Your task to perform on an android device: turn off improve location accuracy Image 0: 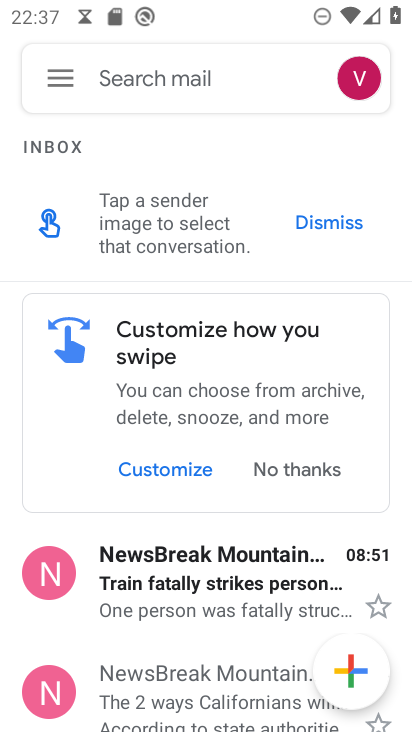
Step 0: press home button
Your task to perform on an android device: turn off improve location accuracy Image 1: 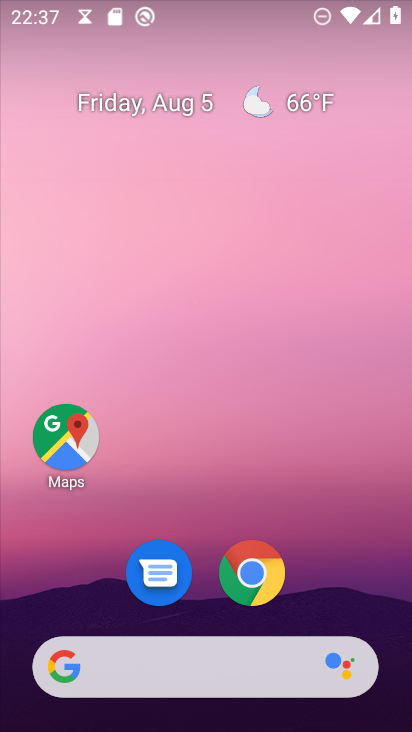
Step 1: drag from (177, 675) to (317, 55)
Your task to perform on an android device: turn off improve location accuracy Image 2: 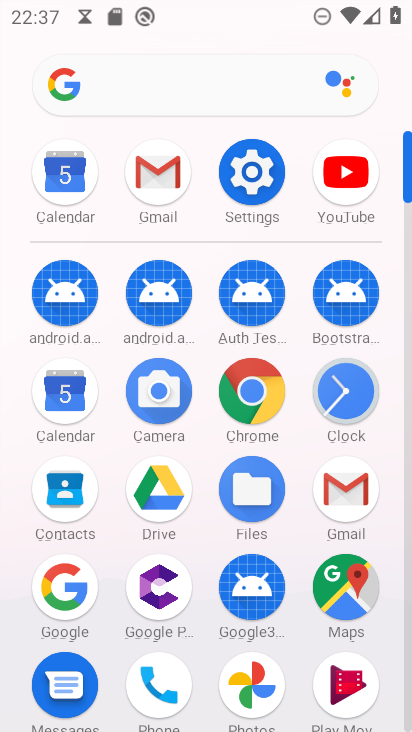
Step 2: click (251, 174)
Your task to perform on an android device: turn off improve location accuracy Image 3: 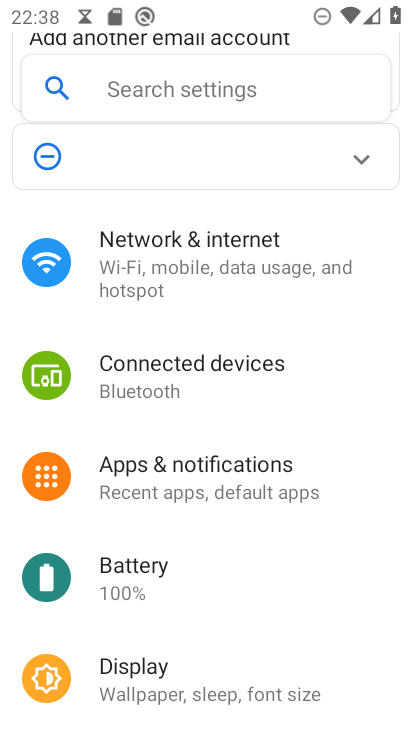
Step 3: drag from (218, 391) to (234, 214)
Your task to perform on an android device: turn off improve location accuracy Image 4: 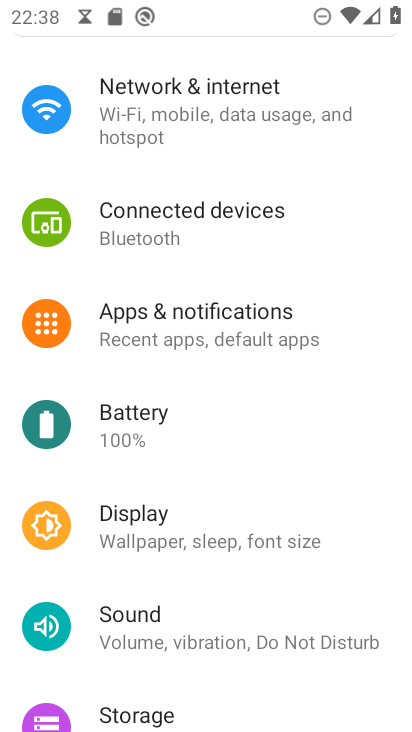
Step 4: drag from (207, 413) to (224, 237)
Your task to perform on an android device: turn off improve location accuracy Image 5: 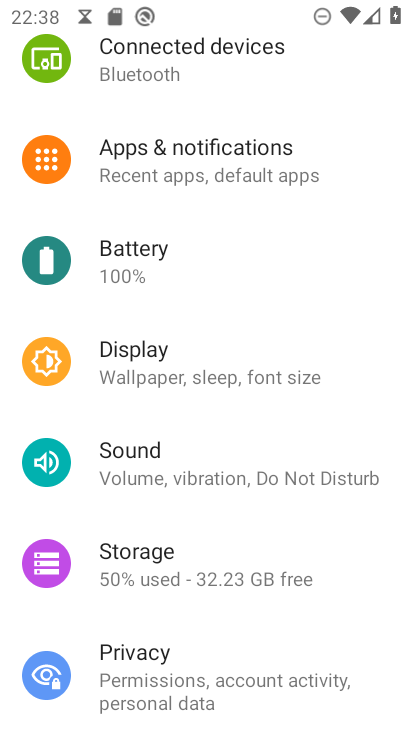
Step 5: drag from (171, 422) to (212, 214)
Your task to perform on an android device: turn off improve location accuracy Image 6: 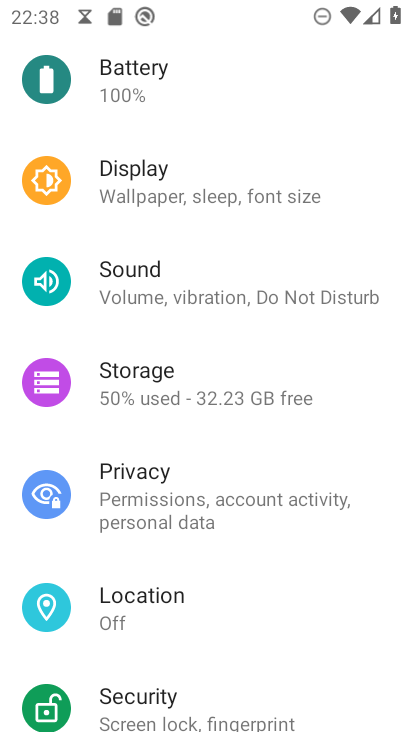
Step 6: drag from (163, 506) to (204, 398)
Your task to perform on an android device: turn off improve location accuracy Image 7: 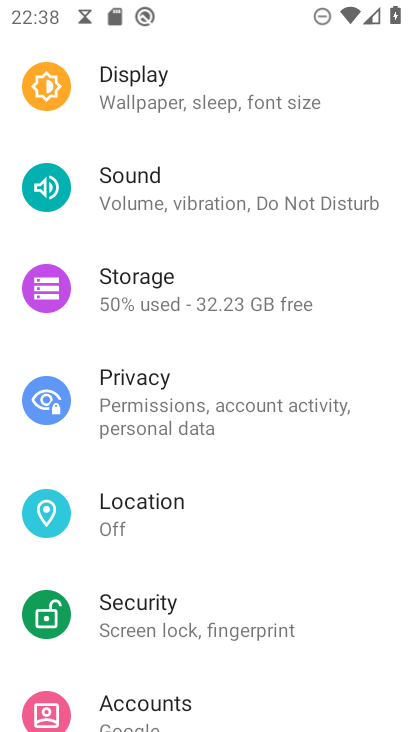
Step 7: click (142, 498)
Your task to perform on an android device: turn off improve location accuracy Image 8: 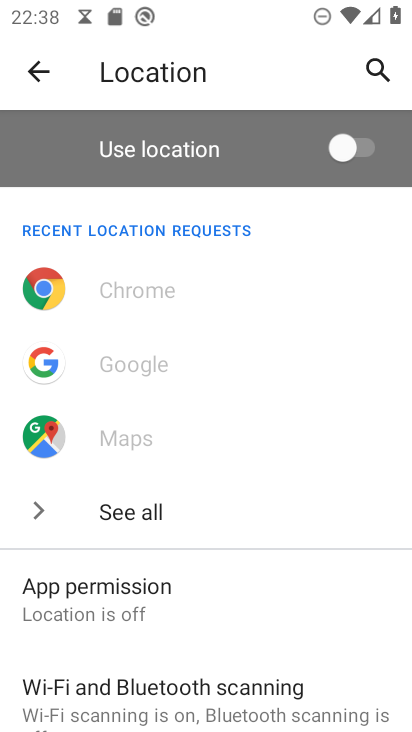
Step 8: drag from (157, 554) to (251, 274)
Your task to perform on an android device: turn off improve location accuracy Image 9: 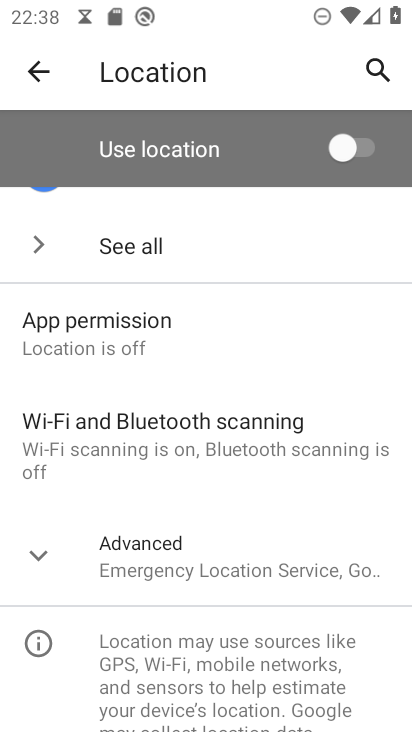
Step 9: click (199, 571)
Your task to perform on an android device: turn off improve location accuracy Image 10: 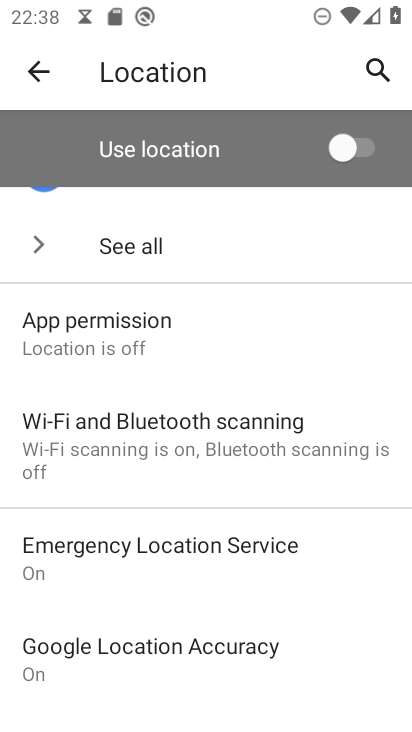
Step 10: drag from (172, 606) to (197, 476)
Your task to perform on an android device: turn off improve location accuracy Image 11: 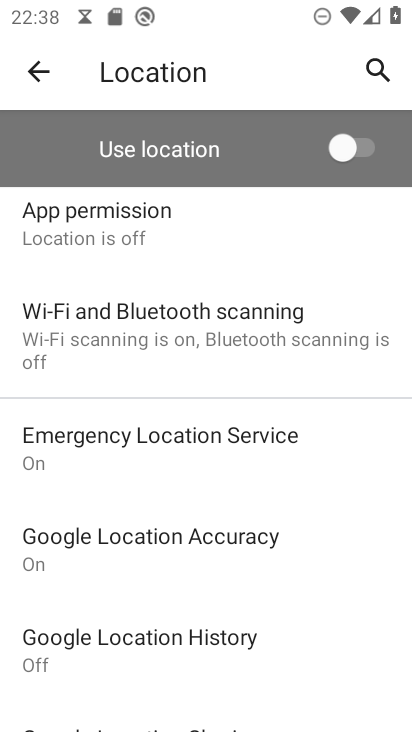
Step 11: click (144, 546)
Your task to perform on an android device: turn off improve location accuracy Image 12: 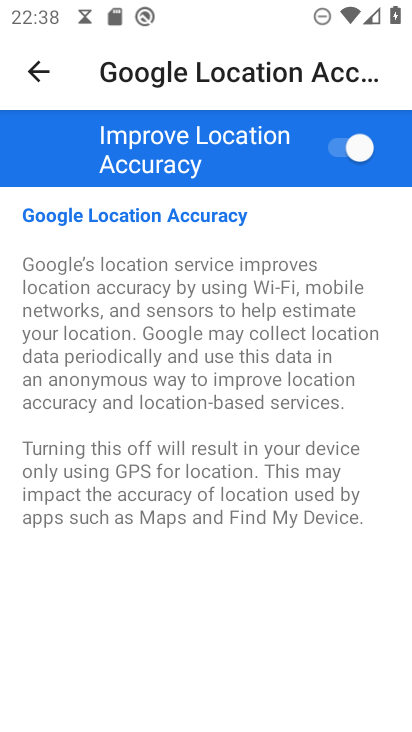
Step 12: click (347, 151)
Your task to perform on an android device: turn off improve location accuracy Image 13: 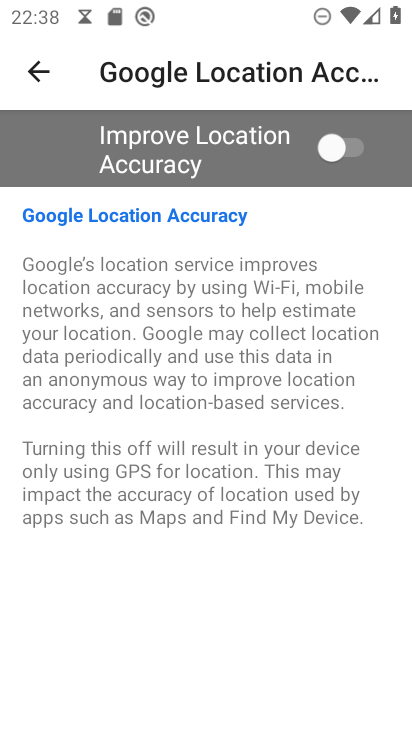
Step 13: task complete